Your task to perform on an android device: check storage Image 0: 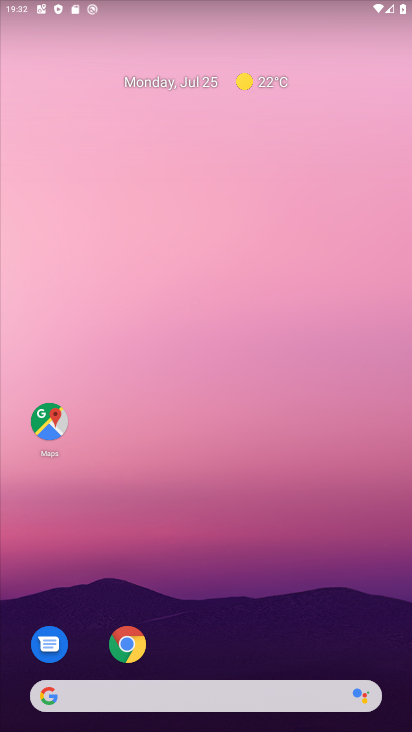
Step 0: press home button
Your task to perform on an android device: check storage Image 1: 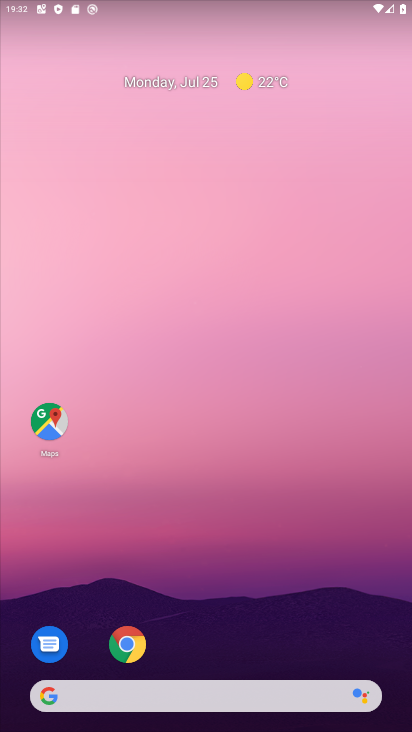
Step 1: drag from (206, 655) to (164, 64)
Your task to perform on an android device: check storage Image 2: 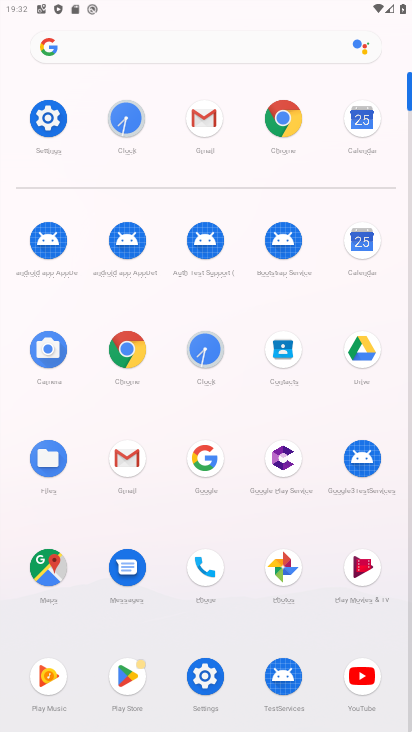
Step 2: click (44, 112)
Your task to perform on an android device: check storage Image 3: 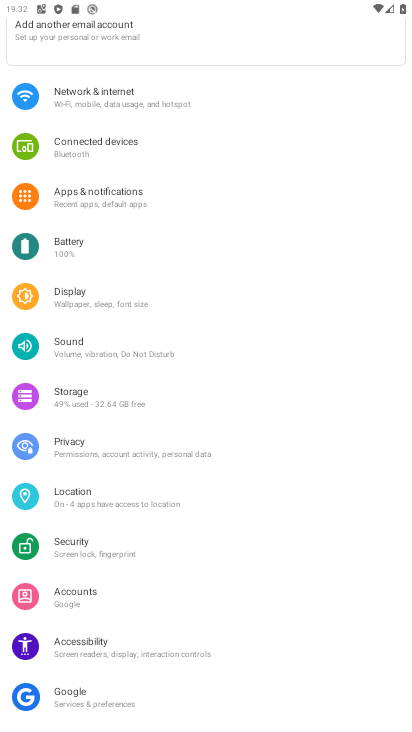
Step 3: click (94, 391)
Your task to perform on an android device: check storage Image 4: 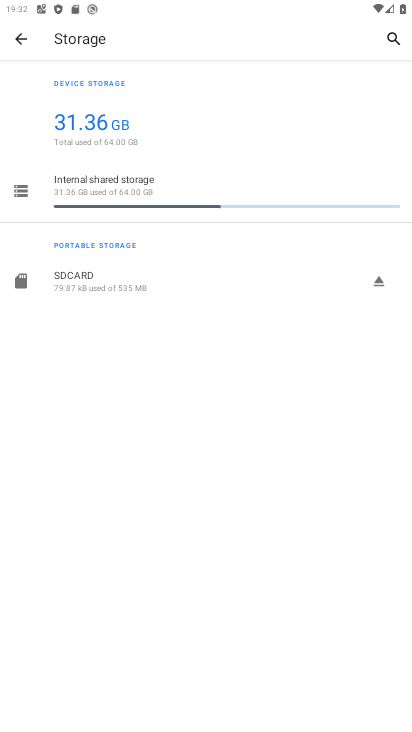
Step 4: task complete